Your task to perform on an android device: Open Google Image 0: 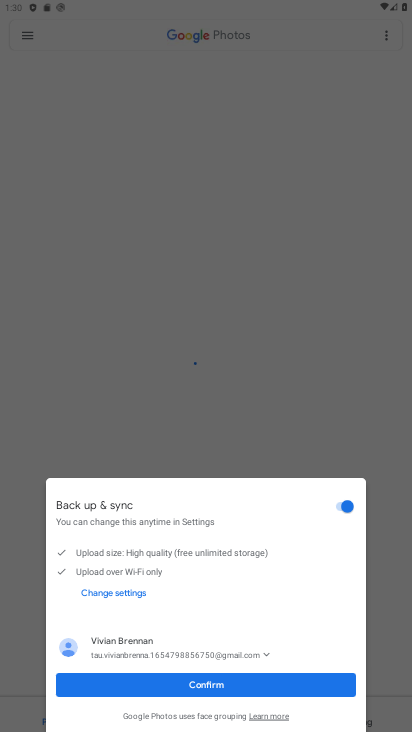
Step 0: press home button
Your task to perform on an android device: Open Google Image 1: 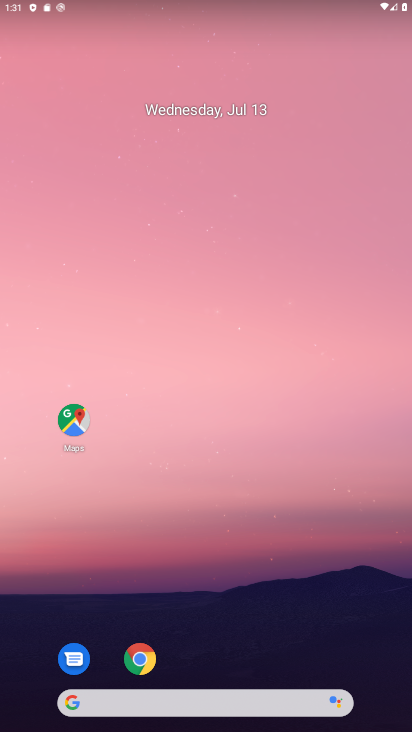
Step 1: click (139, 659)
Your task to perform on an android device: Open Google Image 2: 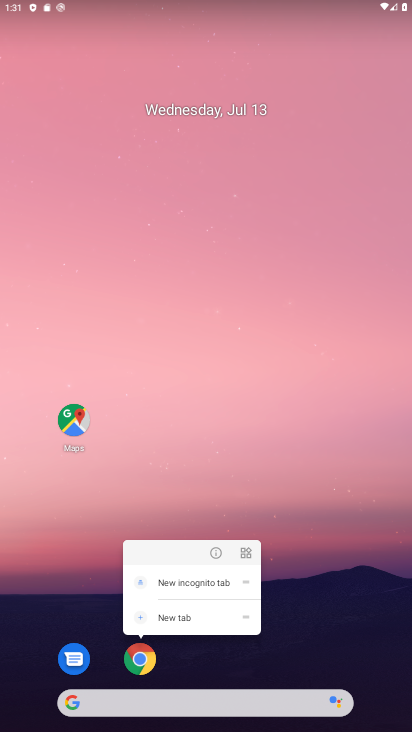
Step 2: click (141, 659)
Your task to perform on an android device: Open Google Image 3: 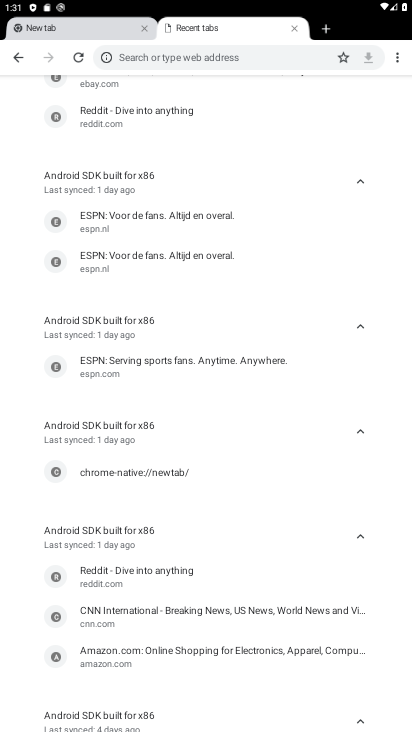
Step 3: click (17, 55)
Your task to perform on an android device: Open Google Image 4: 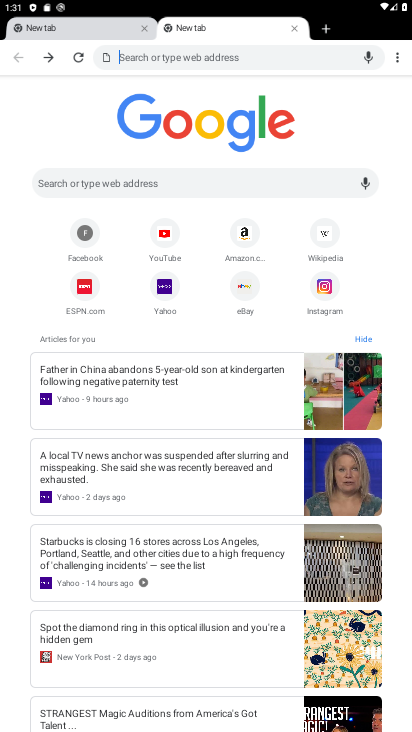
Step 4: task complete